Your task to perform on an android device: turn off notifications in google photos Image 0: 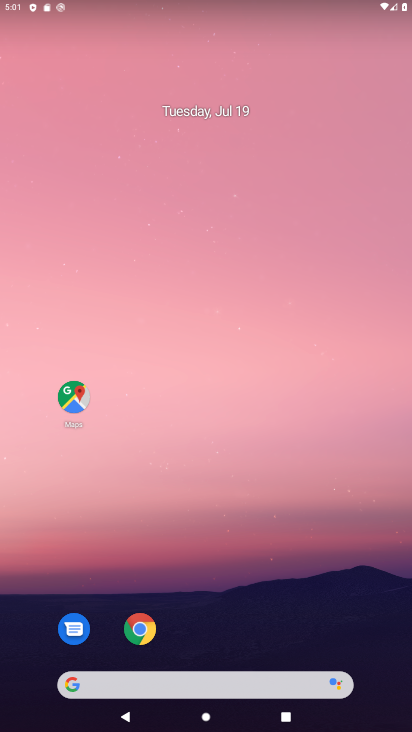
Step 0: press home button
Your task to perform on an android device: turn off notifications in google photos Image 1: 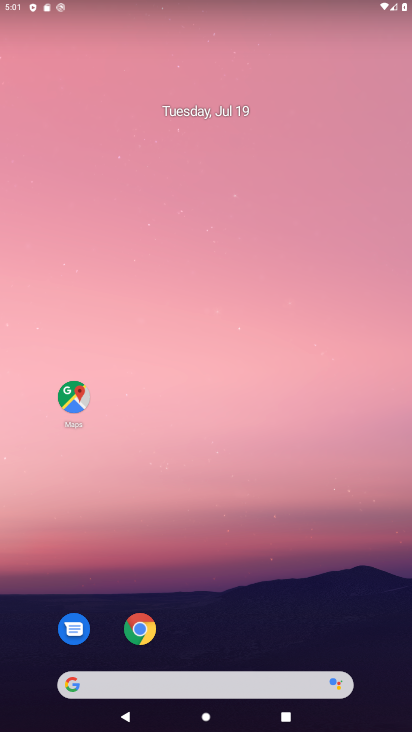
Step 1: drag from (223, 635) to (166, 12)
Your task to perform on an android device: turn off notifications in google photos Image 2: 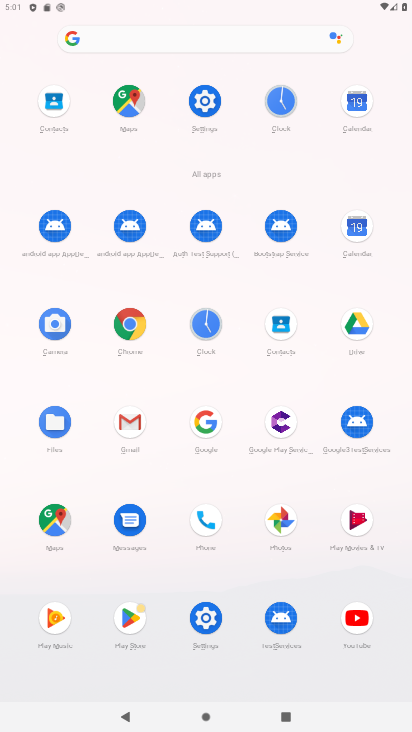
Step 2: click (276, 526)
Your task to perform on an android device: turn off notifications in google photos Image 3: 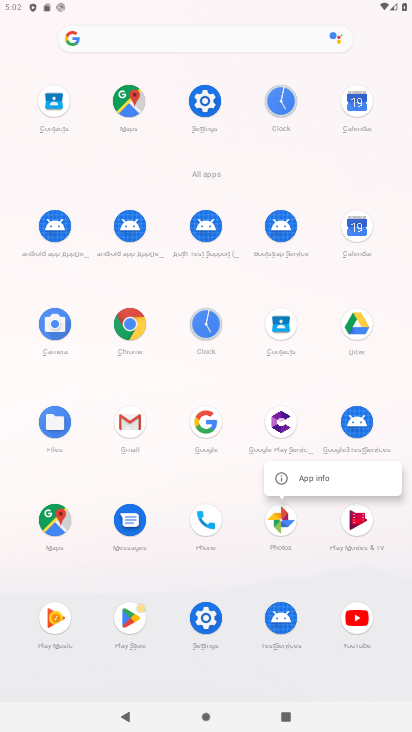
Step 3: click (278, 523)
Your task to perform on an android device: turn off notifications in google photos Image 4: 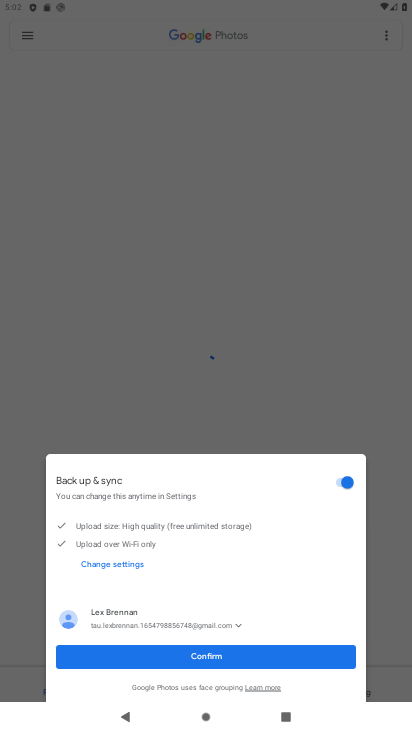
Step 4: click (183, 663)
Your task to perform on an android device: turn off notifications in google photos Image 5: 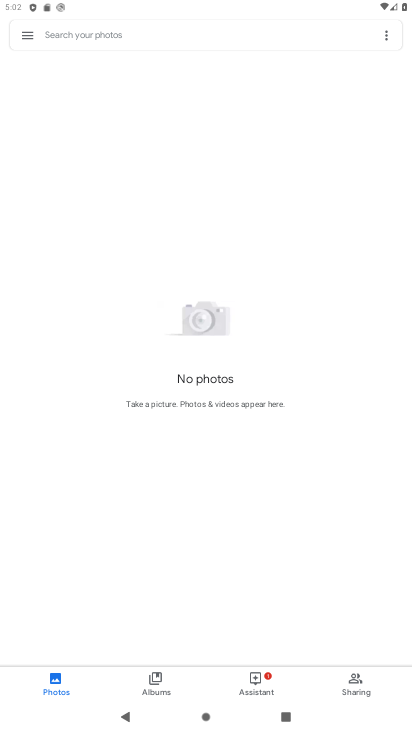
Step 5: click (26, 40)
Your task to perform on an android device: turn off notifications in google photos Image 6: 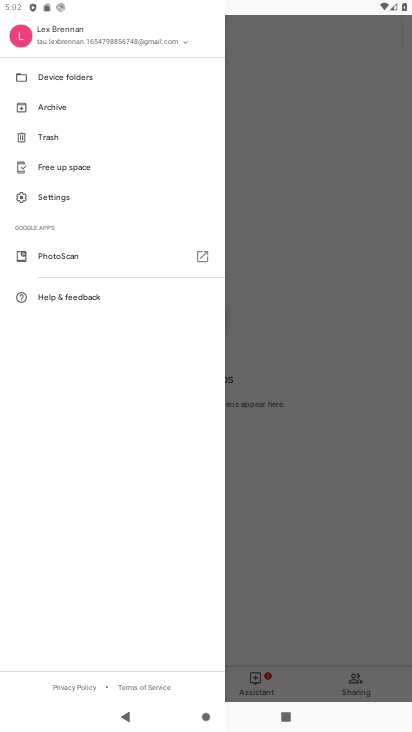
Step 6: click (53, 195)
Your task to perform on an android device: turn off notifications in google photos Image 7: 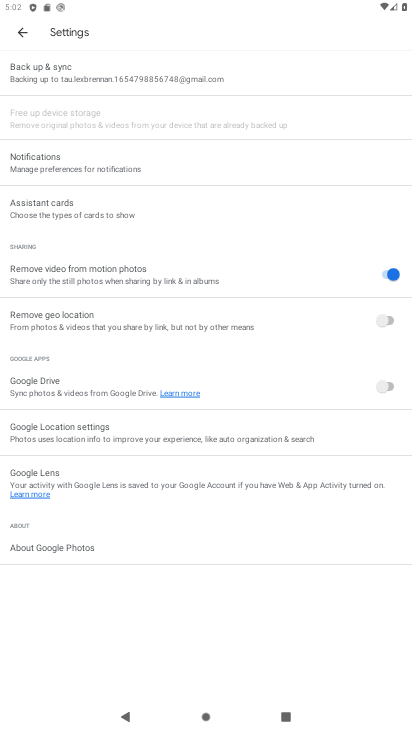
Step 7: click (26, 166)
Your task to perform on an android device: turn off notifications in google photos Image 8: 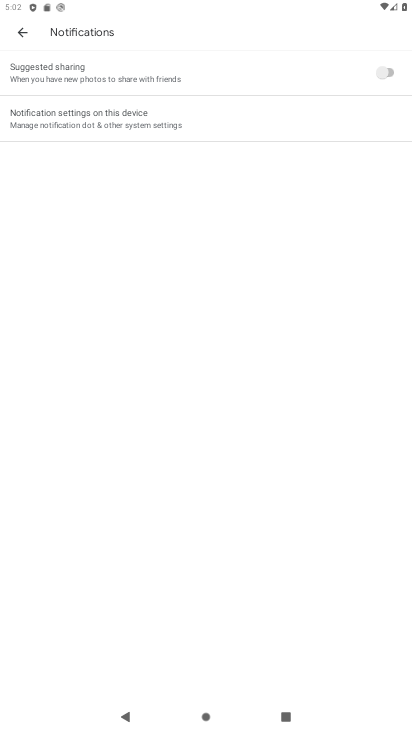
Step 8: task complete